Your task to perform on an android device: Search for Mexican restaurants on Maps Image 0: 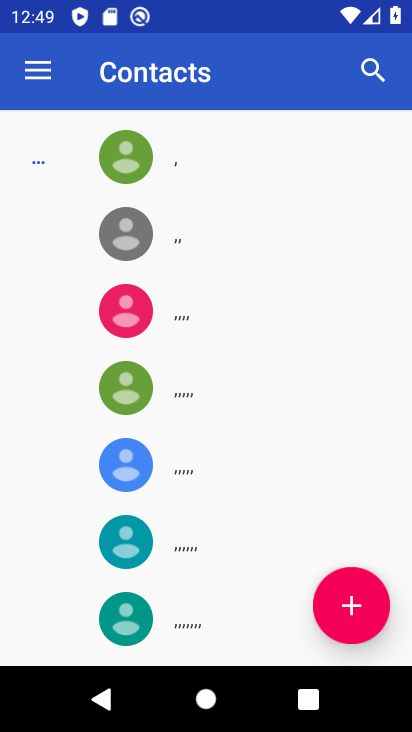
Step 0: press home button
Your task to perform on an android device: Search for Mexican restaurants on Maps Image 1: 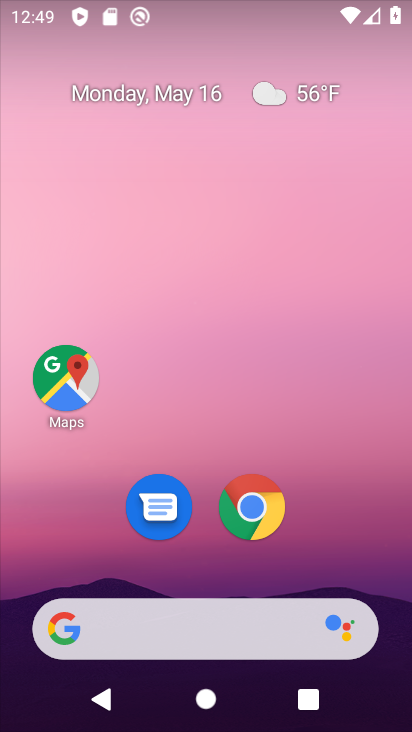
Step 1: click (97, 371)
Your task to perform on an android device: Search for Mexican restaurants on Maps Image 2: 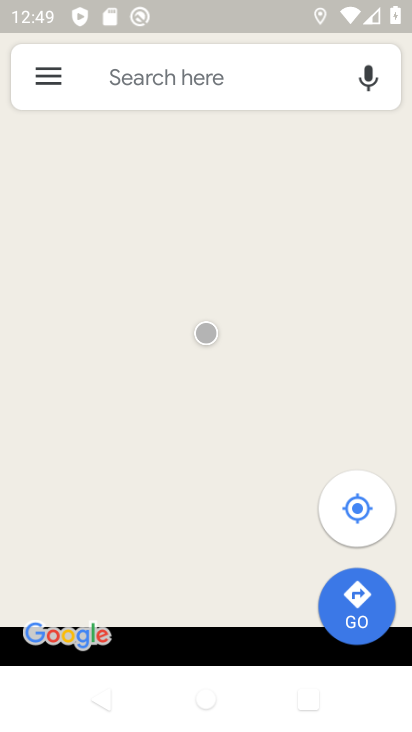
Step 2: click (157, 82)
Your task to perform on an android device: Search for Mexican restaurants on Maps Image 3: 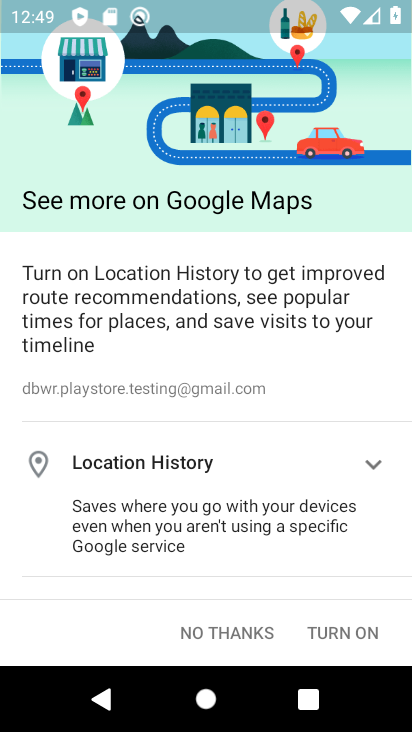
Step 3: click (336, 632)
Your task to perform on an android device: Search for Mexican restaurants on Maps Image 4: 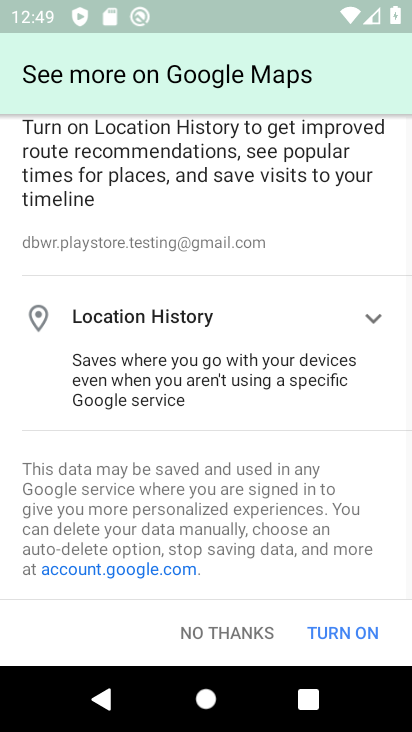
Step 4: click (336, 632)
Your task to perform on an android device: Search for Mexican restaurants on Maps Image 5: 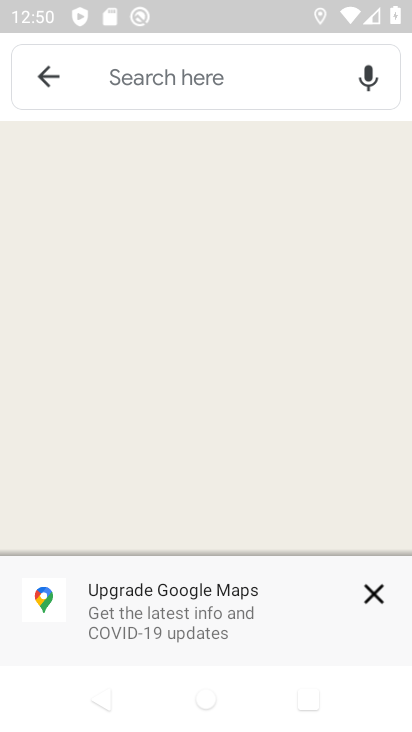
Step 5: click (110, 72)
Your task to perform on an android device: Search for Mexican restaurants on Maps Image 6: 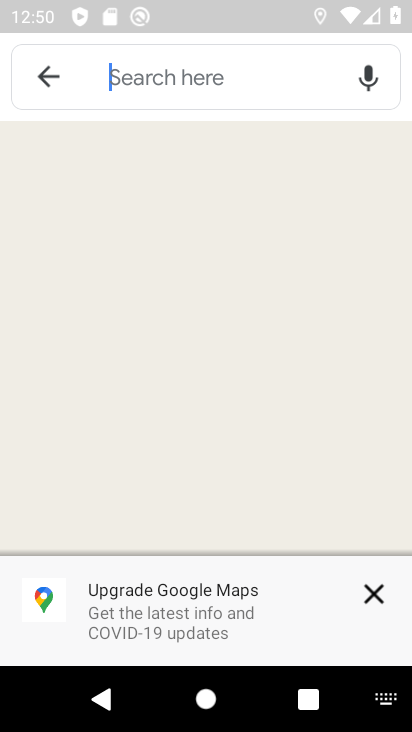
Step 6: type "Mexican restaurants"
Your task to perform on an android device: Search for Mexican restaurants on Maps Image 7: 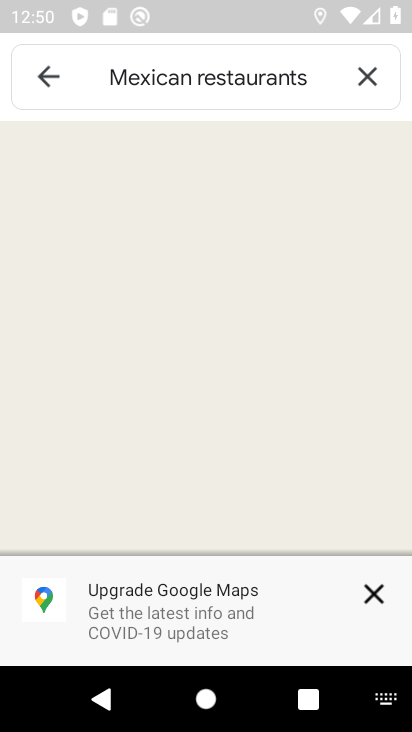
Step 7: task complete